Your task to perform on an android device: set the timer Image 0: 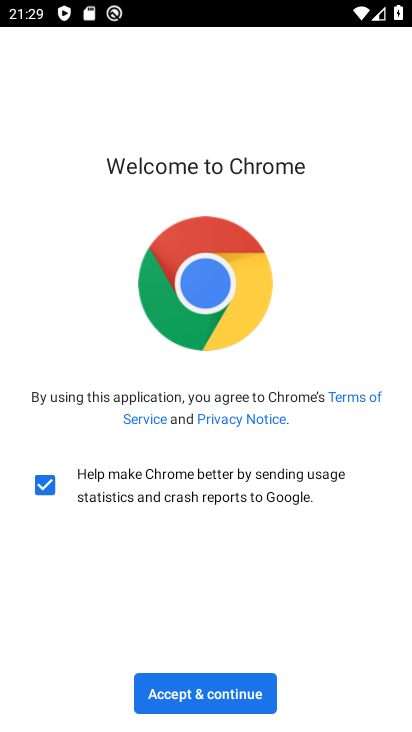
Step 0: press home button
Your task to perform on an android device: set the timer Image 1: 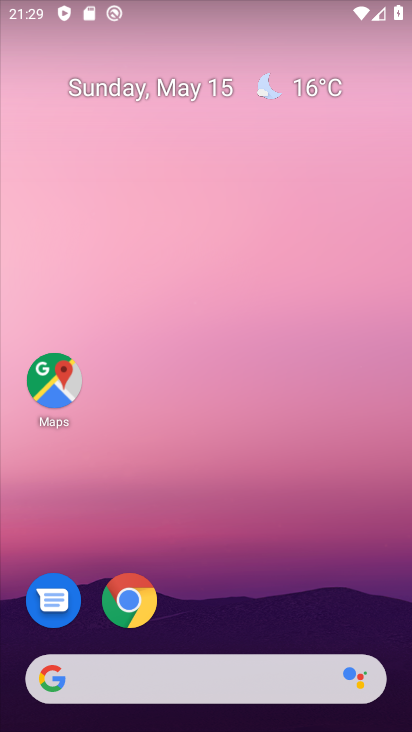
Step 1: drag from (229, 613) to (202, 116)
Your task to perform on an android device: set the timer Image 2: 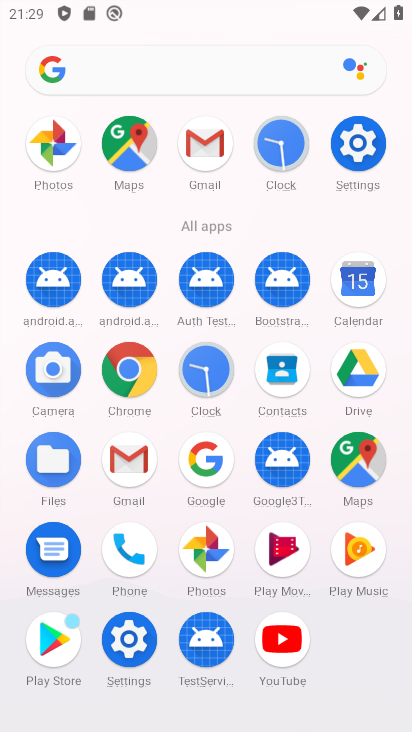
Step 2: click (285, 139)
Your task to perform on an android device: set the timer Image 3: 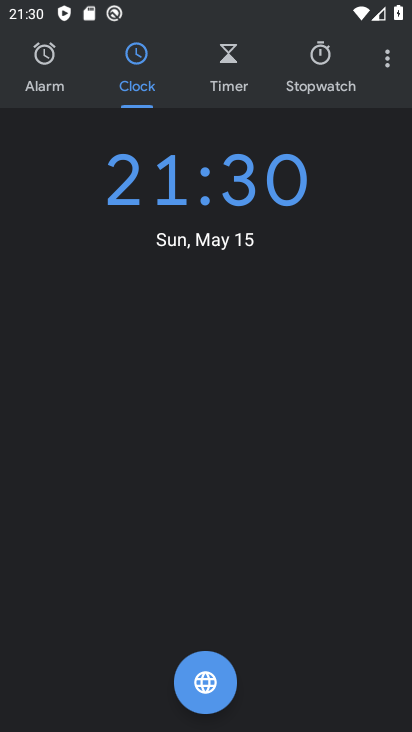
Step 3: click (243, 73)
Your task to perform on an android device: set the timer Image 4: 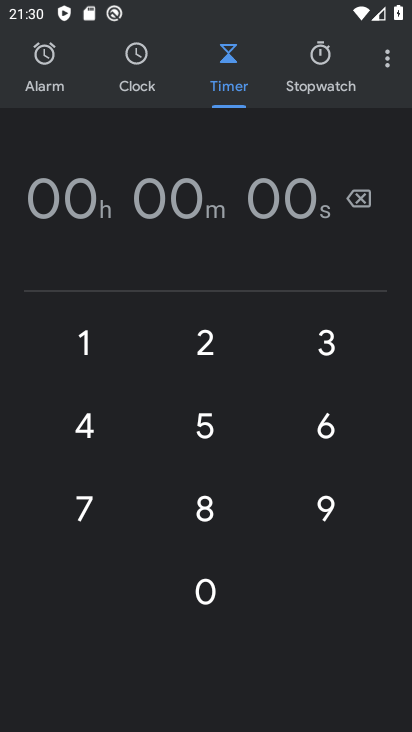
Step 4: type "100000"
Your task to perform on an android device: set the timer Image 5: 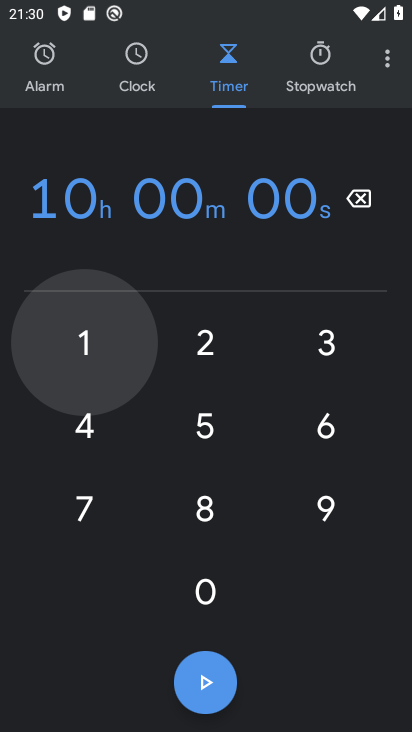
Step 5: click (192, 690)
Your task to perform on an android device: set the timer Image 6: 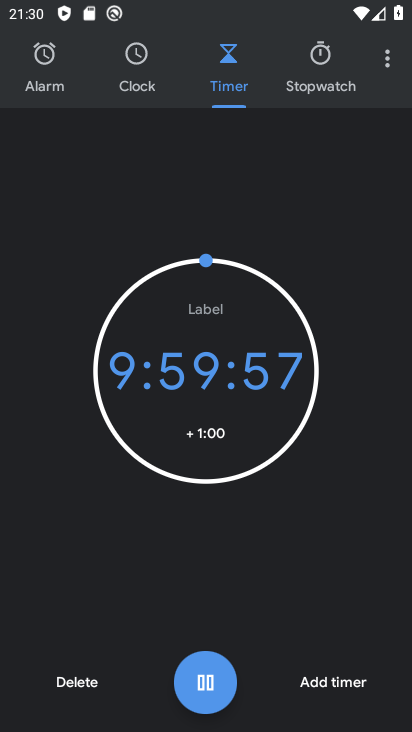
Step 6: task complete